Your task to perform on an android device: turn on data saver in the chrome app Image 0: 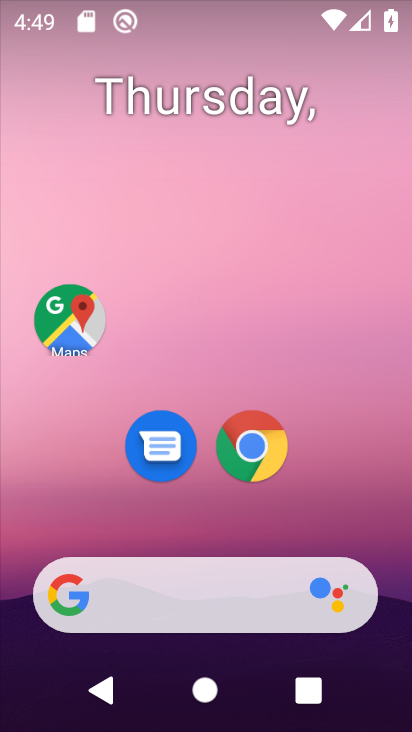
Step 0: click (243, 447)
Your task to perform on an android device: turn on data saver in the chrome app Image 1: 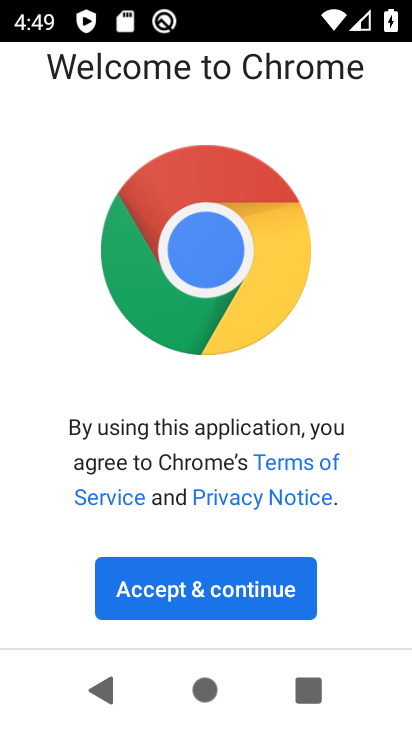
Step 1: click (222, 576)
Your task to perform on an android device: turn on data saver in the chrome app Image 2: 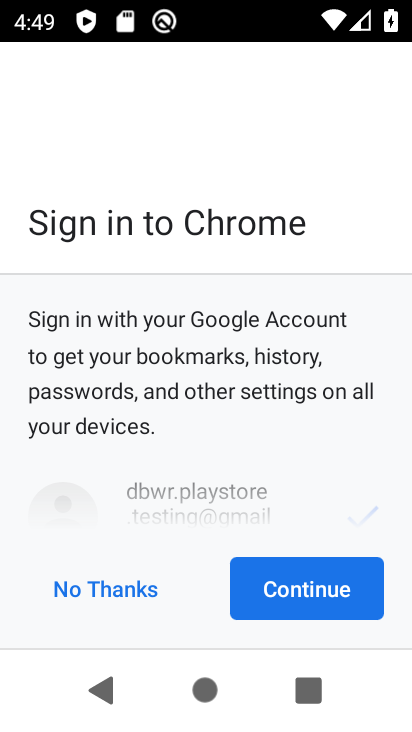
Step 2: click (322, 592)
Your task to perform on an android device: turn on data saver in the chrome app Image 3: 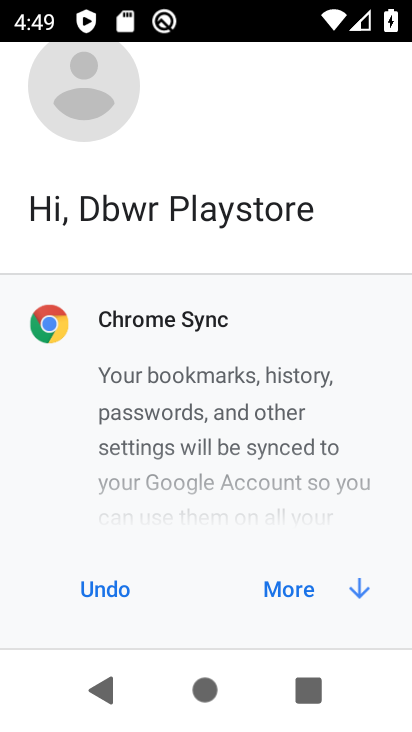
Step 3: click (335, 593)
Your task to perform on an android device: turn on data saver in the chrome app Image 4: 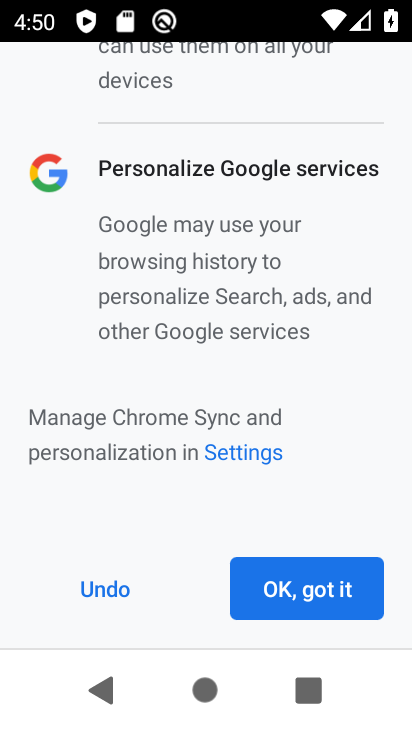
Step 4: click (334, 594)
Your task to perform on an android device: turn on data saver in the chrome app Image 5: 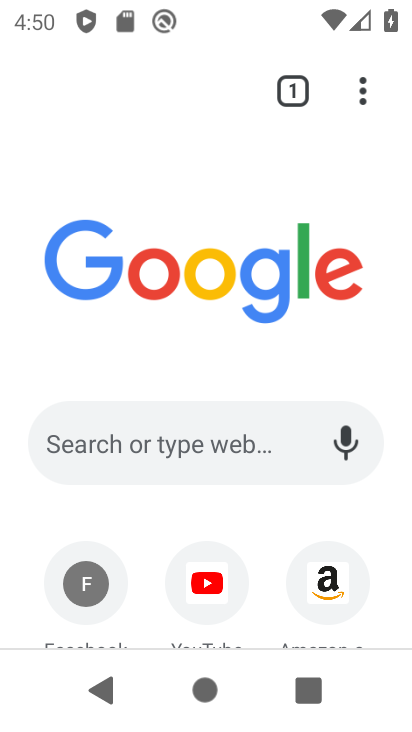
Step 5: drag from (396, 117) to (307, 491)
Your task to perform on an android device: turn on data saver in the chrome app Image 6: 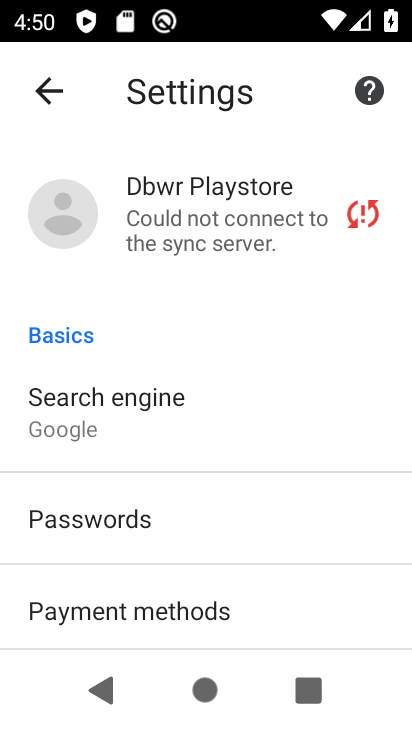
Step 6: drag from (241, 587) to (331, 216)
Your task to perform on an android device: turn on data saver in the chrome app Image 7: 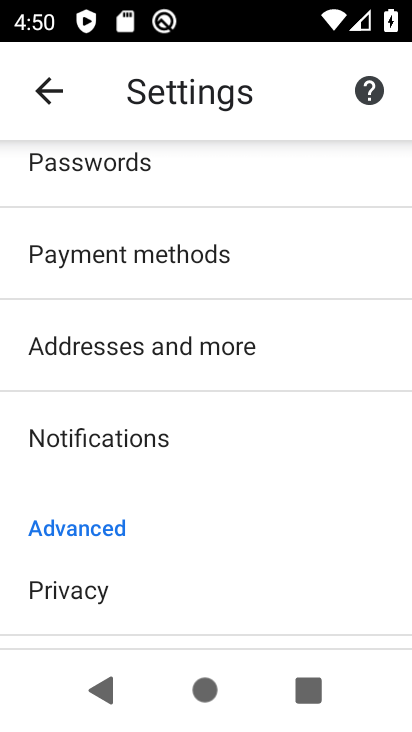
Step 7: drag from (223, 566) to (305, 289)
Your task to perform on an android device: turn on data saver in the chrome app Image 8: 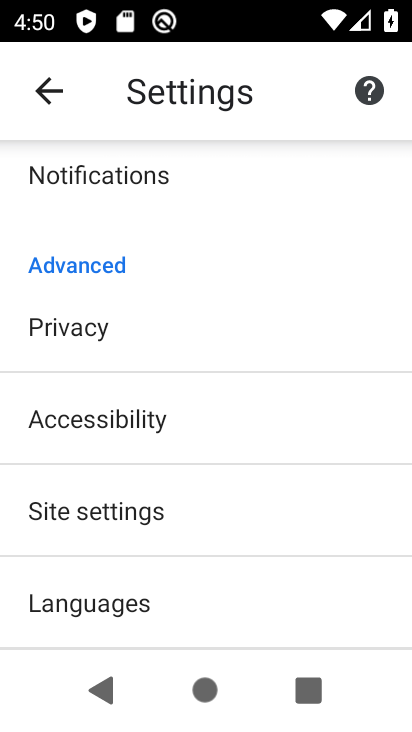
Step 8: drag from (181, 625) to (283, 266)
Your task to perform on an android device: turn on data saver in the chrome app Image 9: 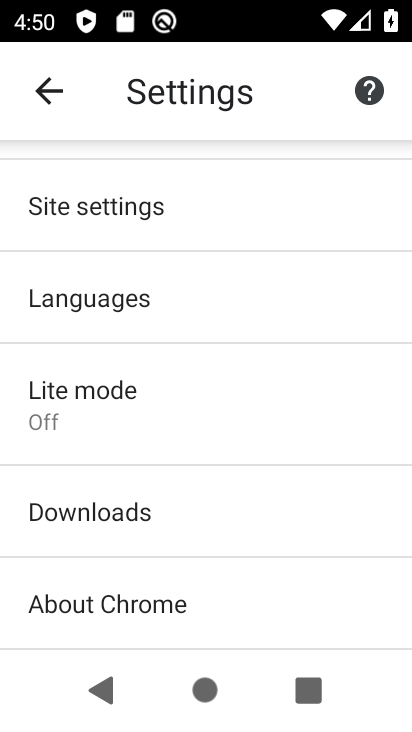
Step 9: click (208, 400)
Your task to perform on an android device: turn on data saver in the chrome app Image 10: 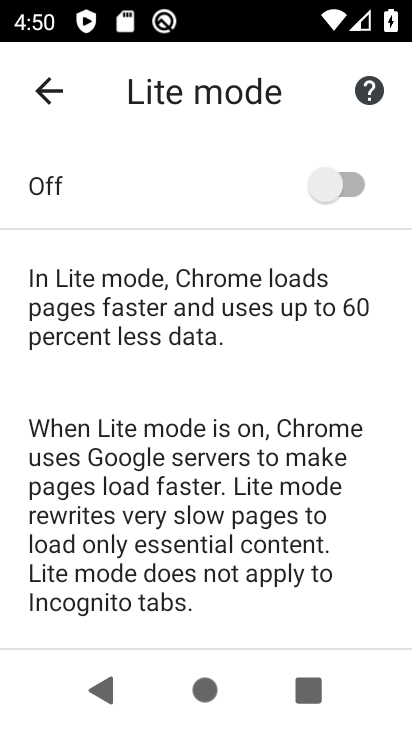
Step 10: click (364, 183)
Your task to perform on an android device: turn on data saver in the chrome app Image 11: 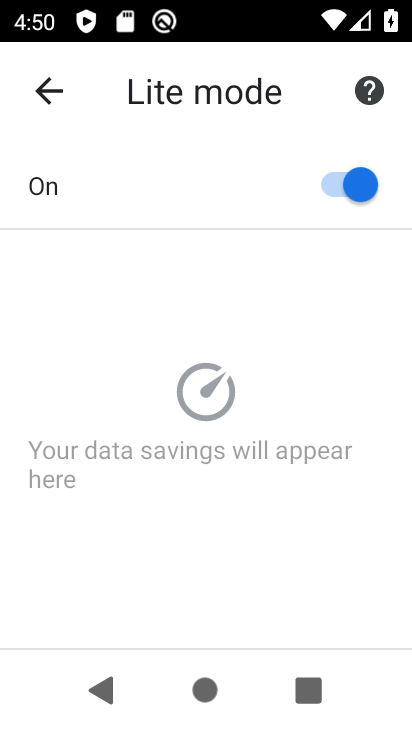
Step 11: task complete